Your task to perform on an android device: turn vacation reply on in the gmail app Image 0: 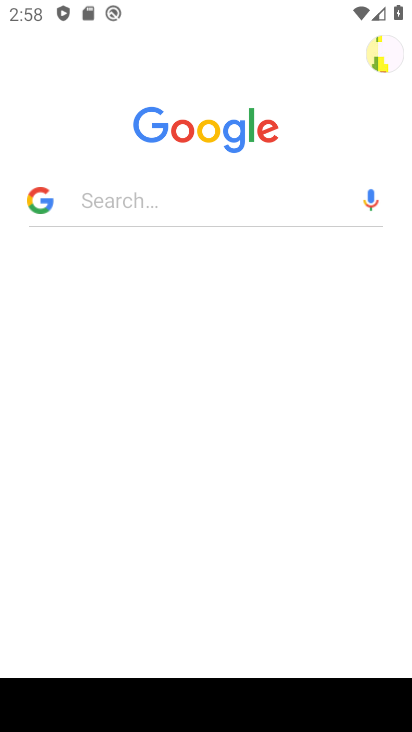
Step 0: press home button
Your task to perform on an android device: turn vacation reply on in the gmail app Image 1: 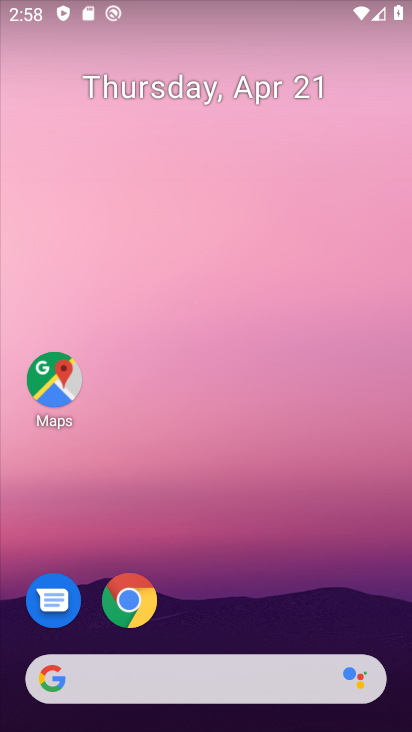
Step 1: drag from (174, 502) to (235, 79)
Your task to perform on an android device: turn vacation reply on in the gmail app Image 2: 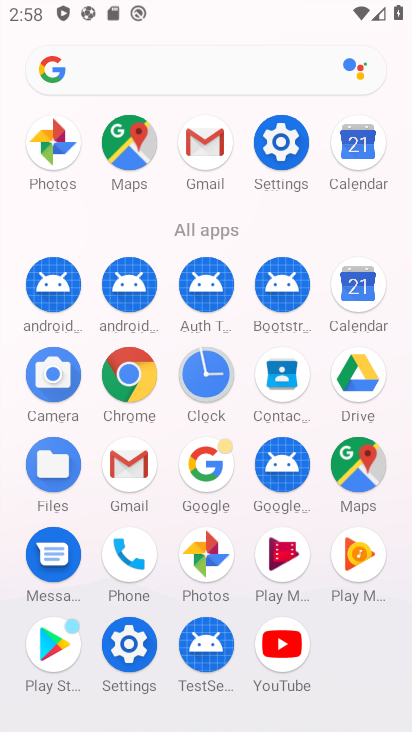
Step 2: click (212, 153)
Your task to perform on an android device: turn vacation reply on in the gmail app Image 3: 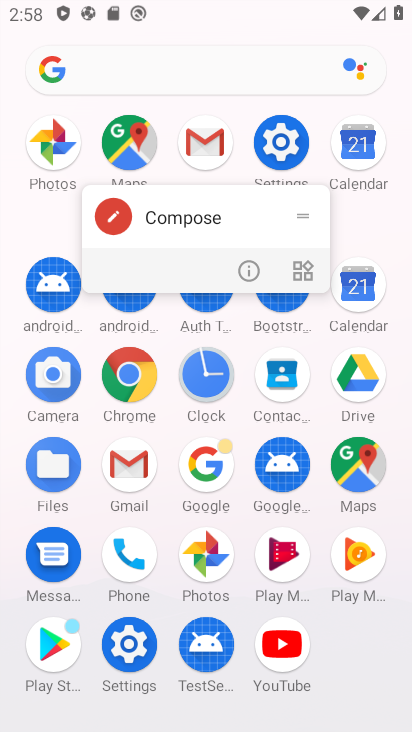
Step 3: click (205, 159)
Your task to perform on an android device: turn vacation reply on in the gmail app Image 4: 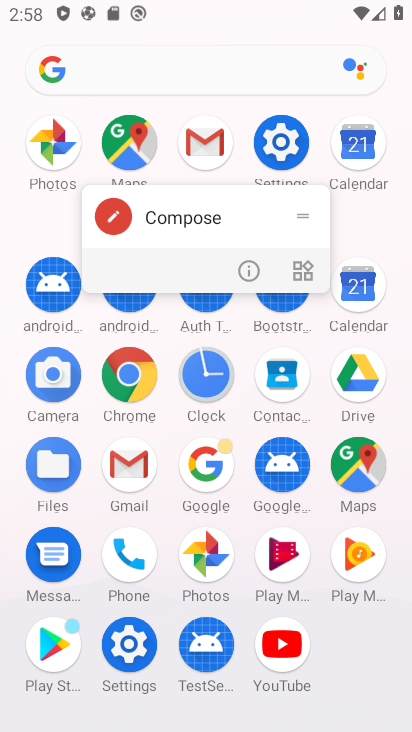
Step 4: click (204, 153)
Your task to perform on an android device: turn vacation reply on in the gmail app Image 5: 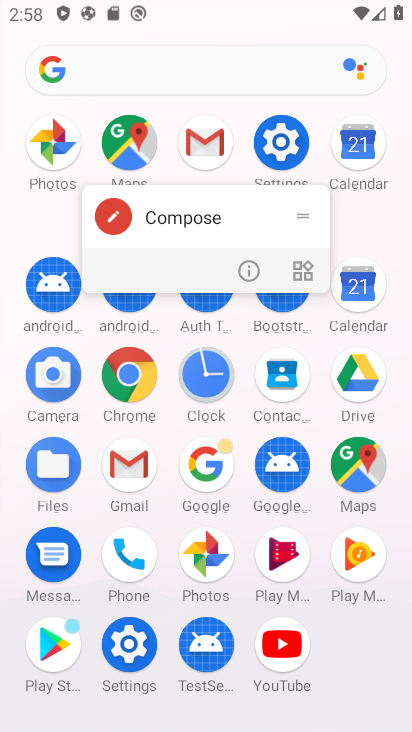
Step 5: click (200, 154)
Your task to perform on an android device: turn vacation reply on in the gmail app Image 6: 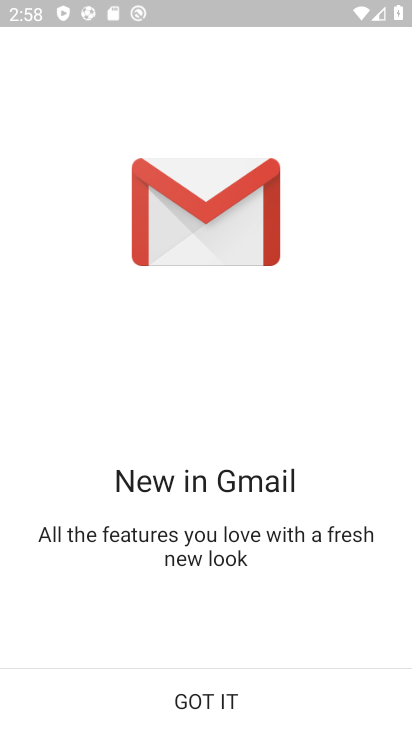
Step 6: click (195, 700)
Your task to perform on an android device: turn vacation reply on in the gmail app Image 7: 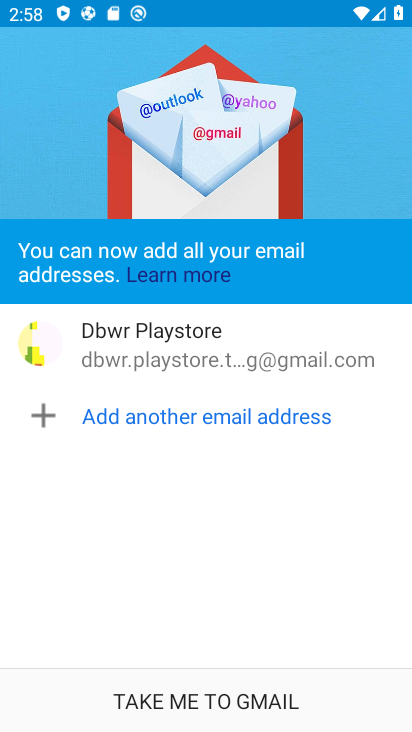
Step 7: click (195, 700)
Your task to perform on an android device: turn vacation reply on in the gmail app Image 8: 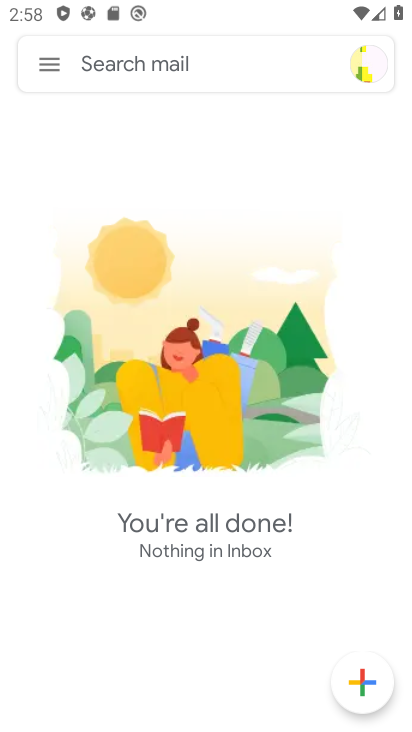
Step 8: click (44, 65)
Your task to perform on an android device: turn vacation reply on in the gmail app Image 9: 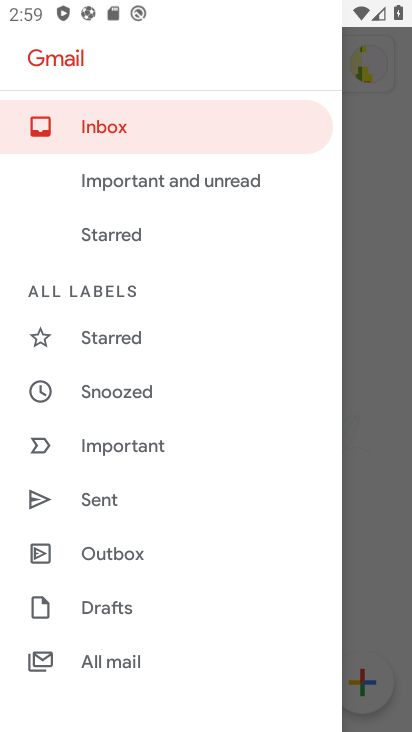
Step 9: drag from (178, 634) to (314, 128)
Your task to perform on an android device: turn vacation reply on in the gmail app Image 10: 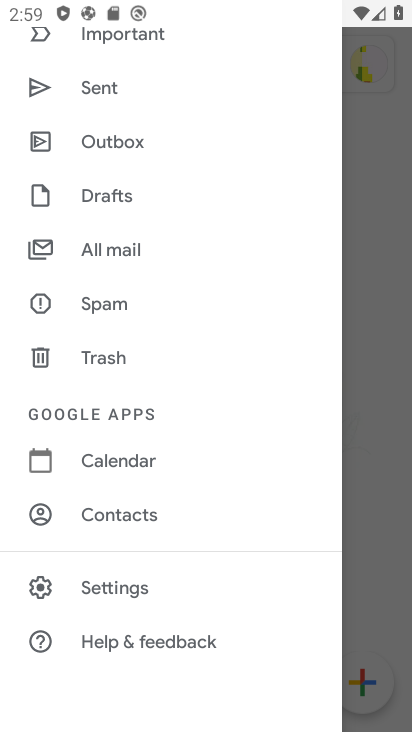
Step 10: click (118, 591)
Your task to perform on an android device: turn vacation reply on in the gmail app Image 11: 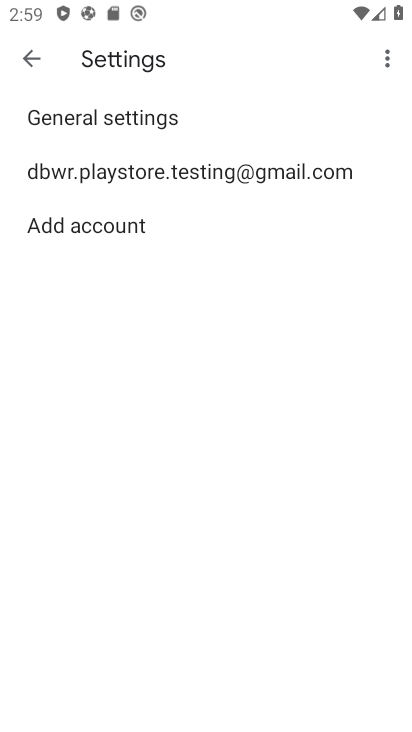
Step 11: click (244, 174)
Your task to perform on an android device: turn vacation reply on in the gmail app Image 12: 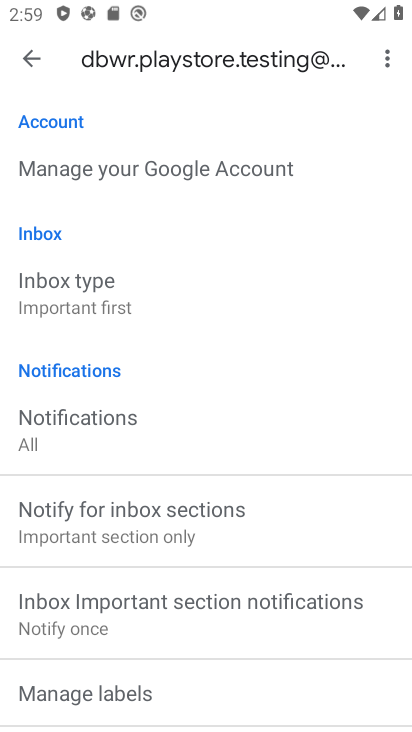
Step 12: drag from (186, 589) to (315, 192)
Your task to perform on an android device: turn vacation reply on in the gmail app Image 13: 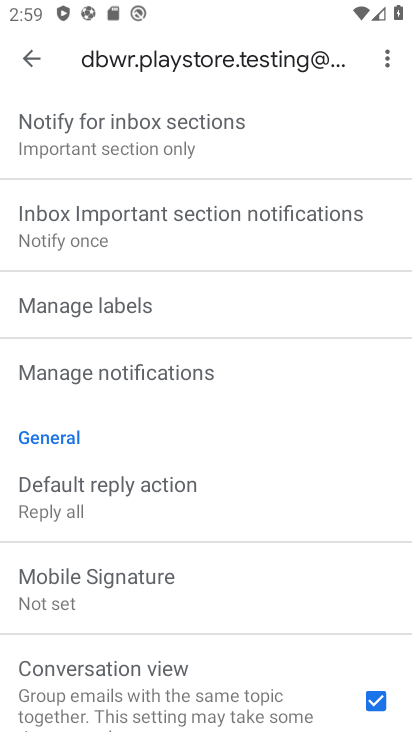
Step 13: drag from (156, 613) to (309, 135)
Your task to perform on an android device: turn vacation reply on in the gmail app Image 14: 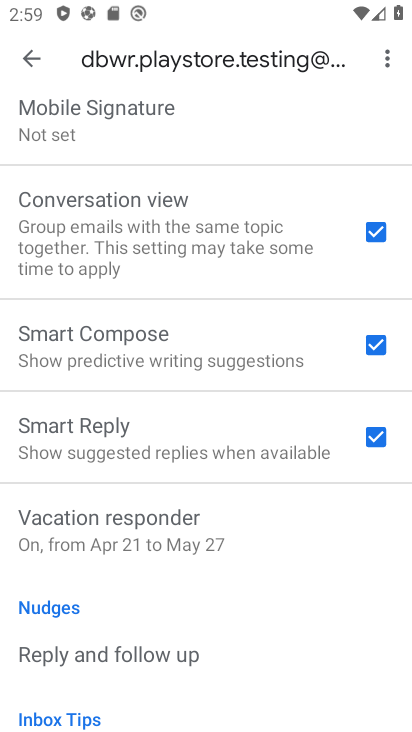
Step 14: click (170, 531)
Your task to perform on an android device: turn vacation reply on in the gmail app Image 15: 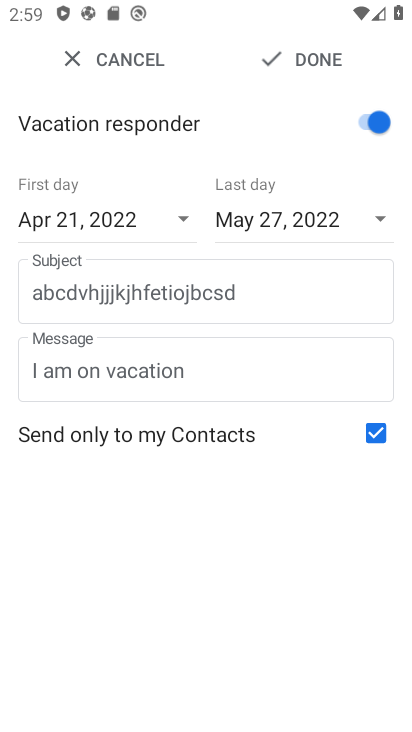
Step 15: task complete